Your task to perform on an android device: turn off javascript in the chrome app Image 0: 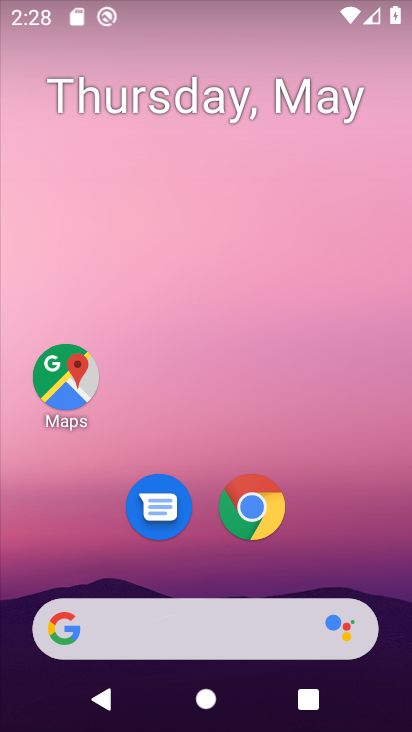
Step 0: click (239, 512)
Your task to perform on an android device: turn off javascript in the chrome app Image 1: 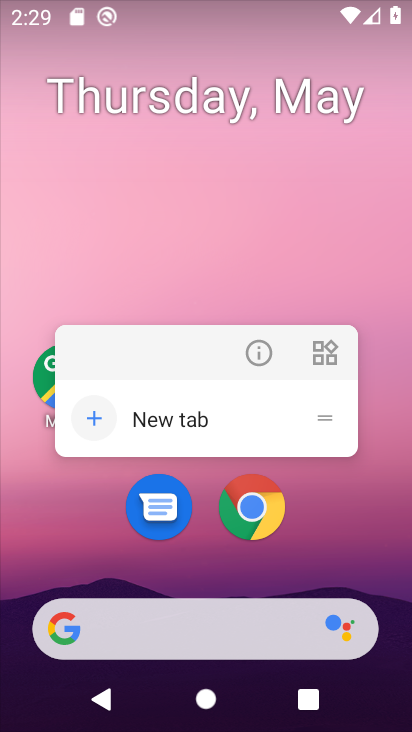
Step 1: click (258, 519)
Your task to perform on an android device: turn off javascript in the chrome app Image 2: 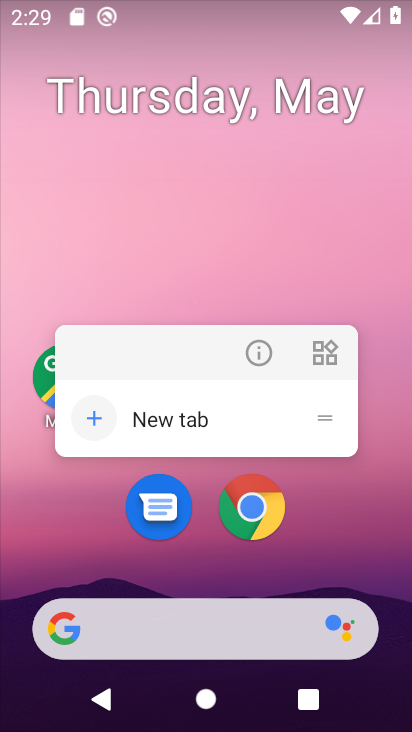
Step 2: click (259, 513)
Your task to perform on an android device: turn off javascript in the chrome app Image 3: 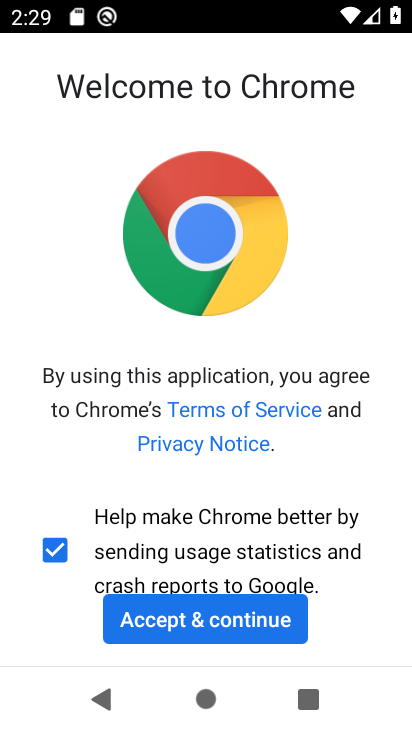
Step 3: click (274, 629)
Your task to perform on an android device: turn off javascript in the chrome app Image 4: 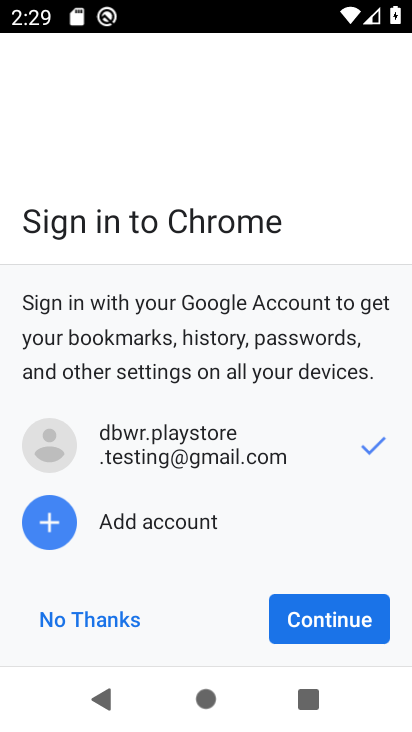
Step 4: click (338, 611)
Your task to perform on an android device: turn off javascript in the chrome app Image 5: 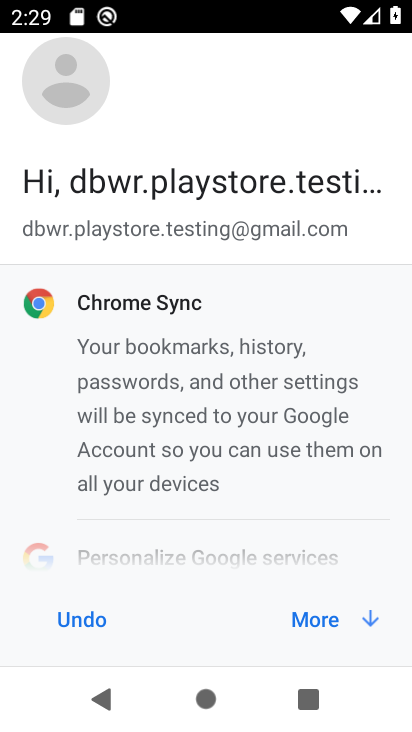
Step 5: click (338, 611)
Your task to perform on an android device: turn off javascript in the chrome app Image 6: 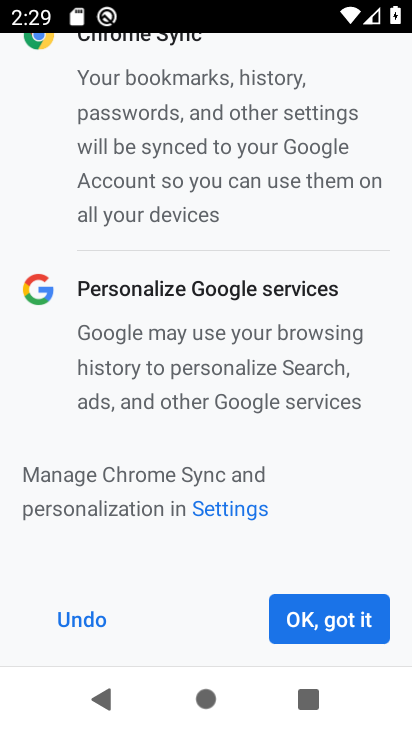
Step 6: click (338, 611)
Your task to perform on an android device: turn off javascript in the chrome app Image 7: 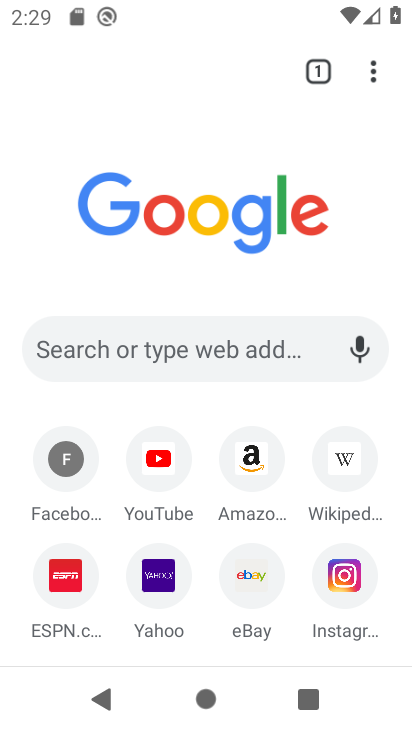
Step 7: drag from (381, 68) to (269, 514)
Your task to perform on an android device: turn off javascript in the chrome app Image 8: 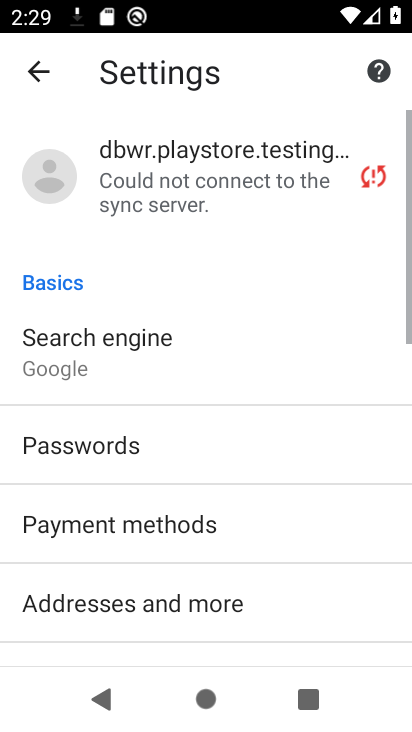
Step 8: drag from (218, 668) to (337, 262)
Your task to perform on an android device: turn off javascript in the chrome app Image 9: 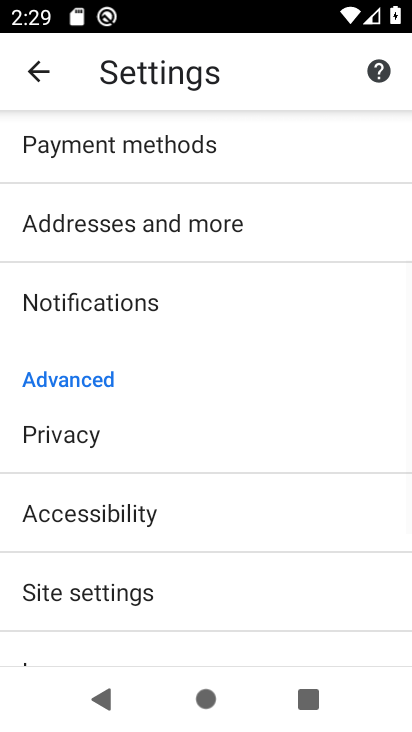
Step 9: drag from (220, 583) to (291, 336)
Your task to perform on an android device: turn off javascript in the chrome app Image 10: 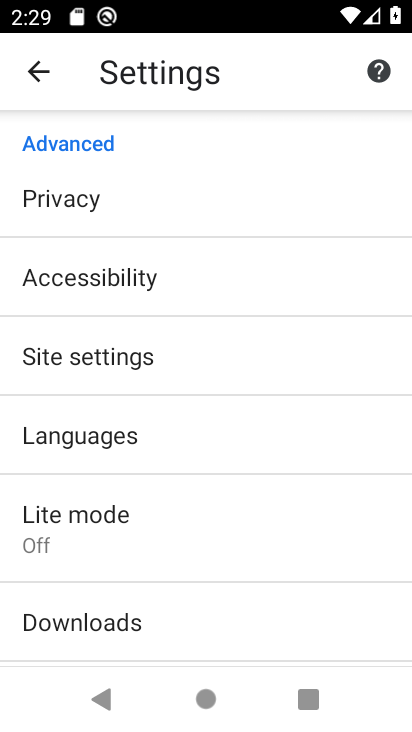
Step 10: click (204, 374)
Your task to perform on an android device: turn off javascript in the chrome app Image 11: 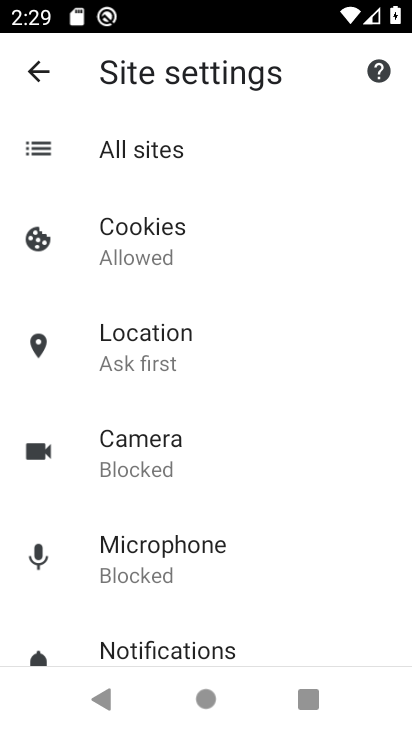
Step 11: drag from (311, 638) to (376, 213)
Your task to perform on an android device: turn off javascript in the chrome app Image 12: 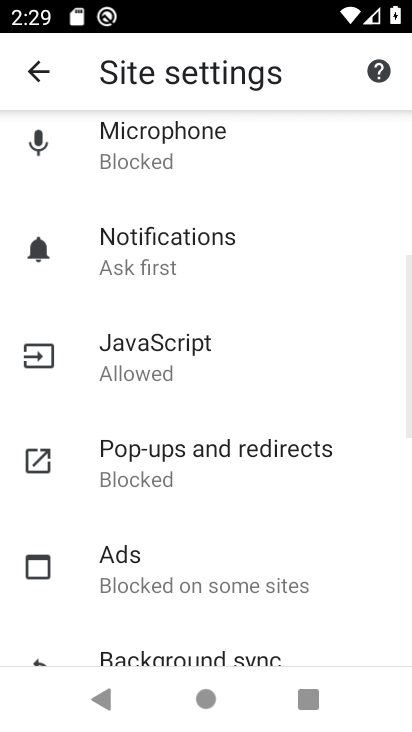
Step 12: drag from (246, 625) to (360, 268)
Your task to perform on an android device: turn off javascript in the chrome app Image 13: 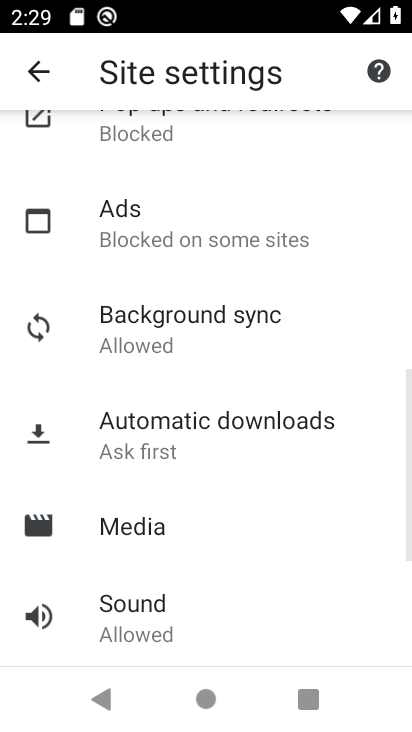
Step 13: drag from (282, 224) to (279, 636)
Your task to perform on an android device: turn off javascript in the chrome app Image 14: 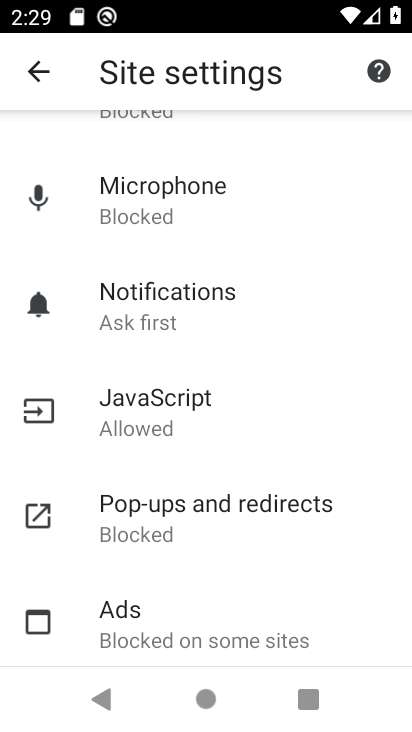
Step 14: click (253, 420)
Your task to perform on an android device: turn off javascript in the chrome app Image 15: 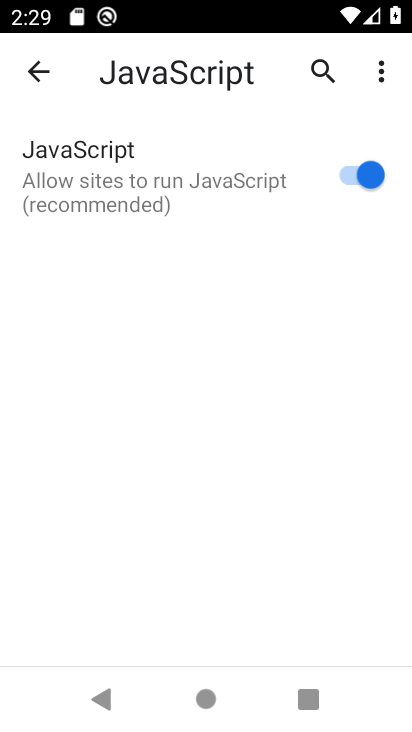
Step 15: click (365, 178)
Your task to perform on an android device: turn off javascript in the chrome app Image 16: 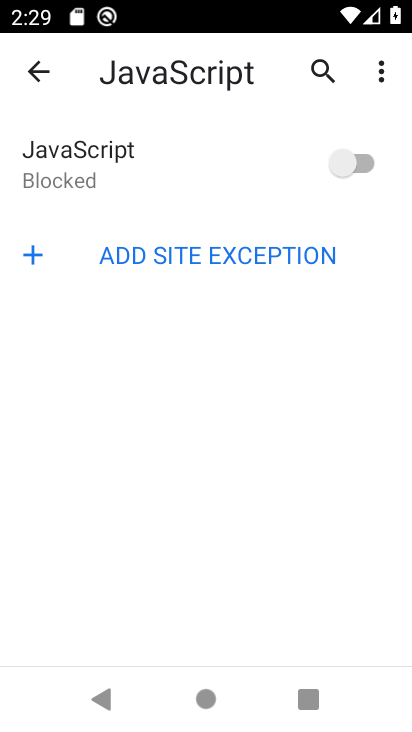
Step 16: task complete